Your task to perform on an android device: Open the calendar app, open the side menu, and click the "Day" option Image 0: 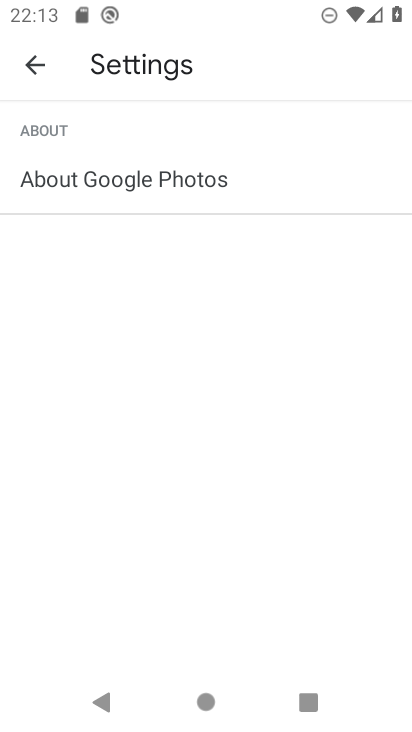
Step 0: press home button
Your task to perform on an android device: Open the calendar app, open the side menu, and click the "Day" option Image 1: 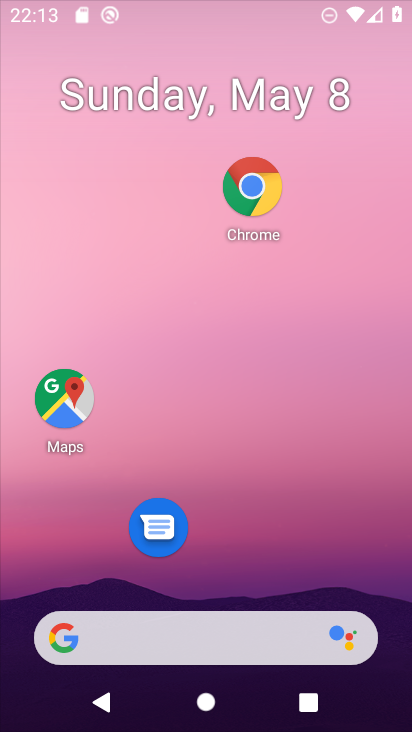
Step 1: drag from (282, 495) to (290, 178)
Your task to perform on an android device: Open the calendar app, open the side menu, and click the "Day" option Image 2: 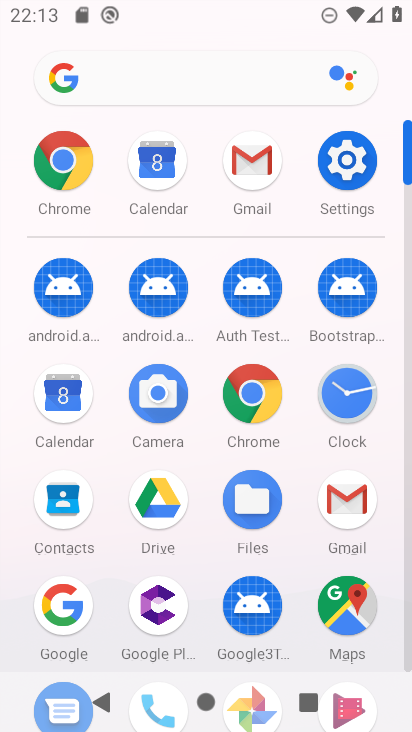
Step 2: click (47, 397)
Your task to perform on an android device: Open the calendar app, open the side menu, and click the "Day" option Image 3: 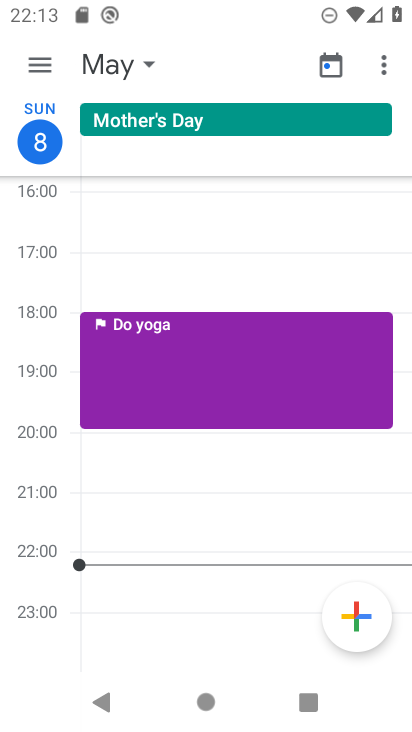
Step 3: click (38, 58)
Your task to perform on an android device: Open the calendar app, open the side menu, and click the "Day" option Image 4: 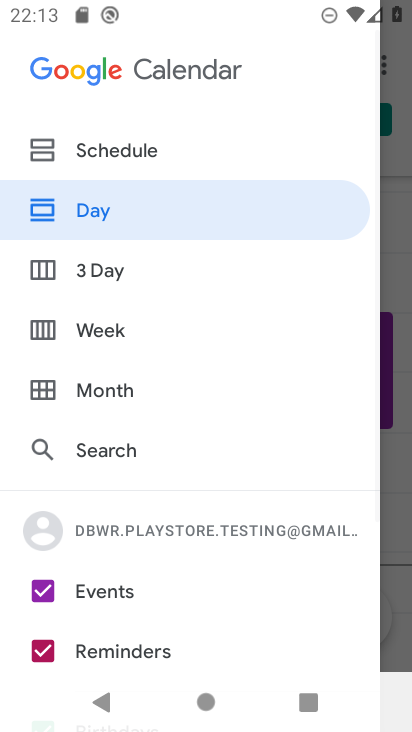
Step 4: click (132, 208)
Your task to perform on an android device: Open the calendar app, open the side menu, and click the "Day" option Image 5: 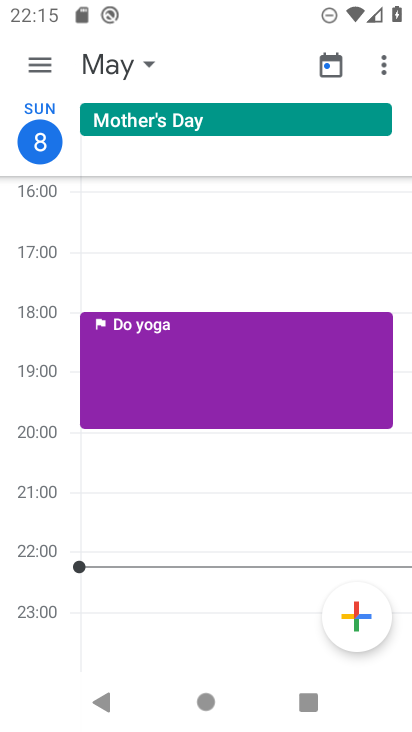
Step 5: task complete